Your task to perform on an android device: Show me recent news Image 0: 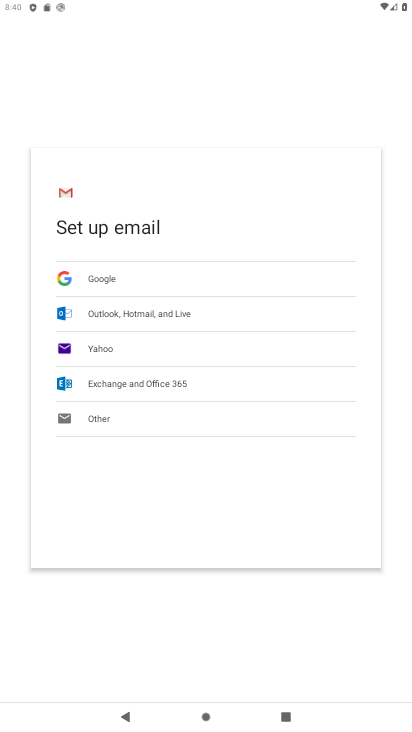
Step 0: press home button
Your task to perform on an android device: Show me recent news Image 1: 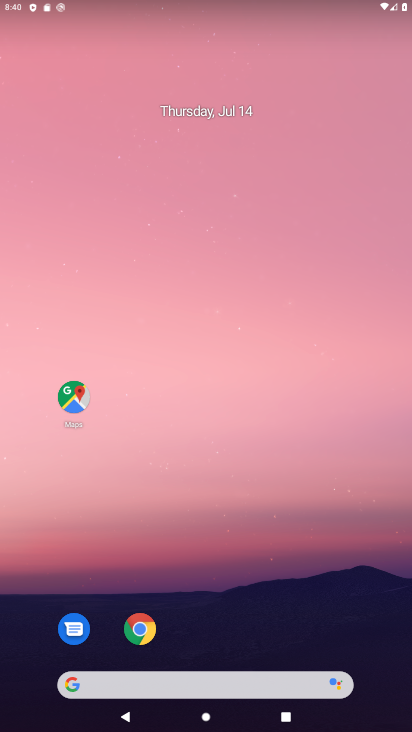
Step 1: click (216, 681)
Your task to perform on an android device: Show me recent news Image 2: 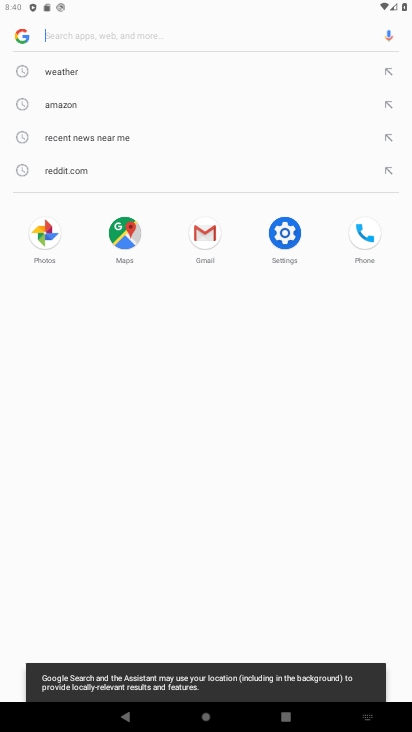
Step 2: click (252, 42)
Your task to perform on an android device: Show me recent news Image 3: 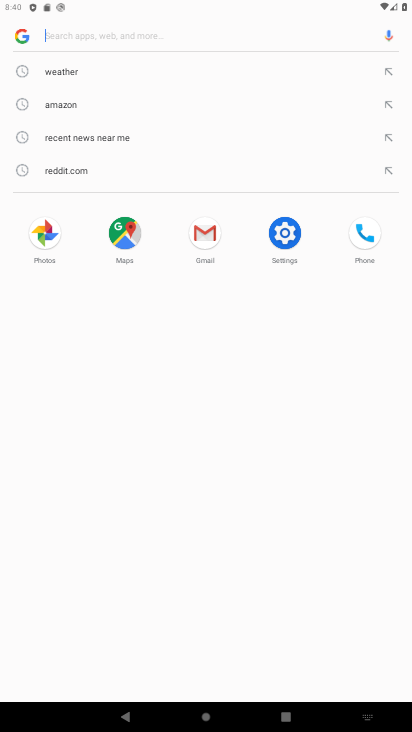
Step 3: type "recent news"
Your task to perform on an android device: Show me recent news Image 4: 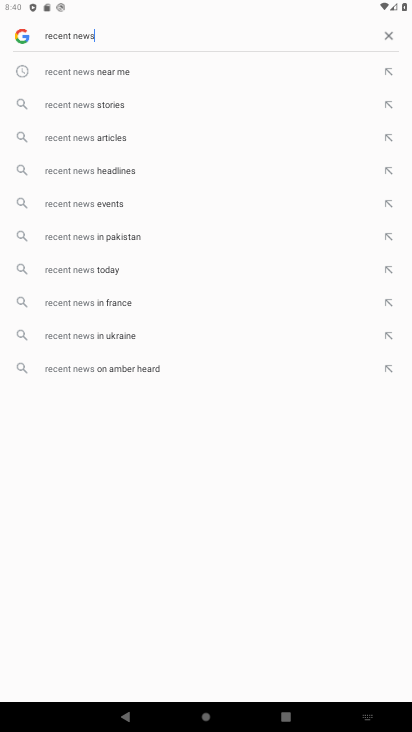
Step 4: click (86, 266)
Your task to perform on an android device: Show me recent news Image 5: 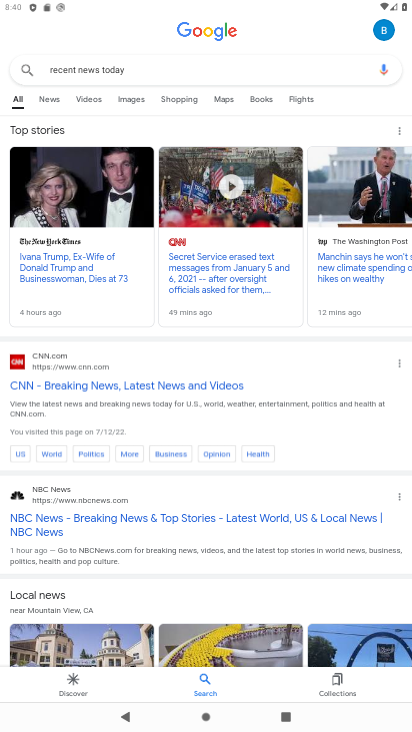
Step 5: click (52, 98)
Your task to perform on an android device: Show me recent news Image 6: 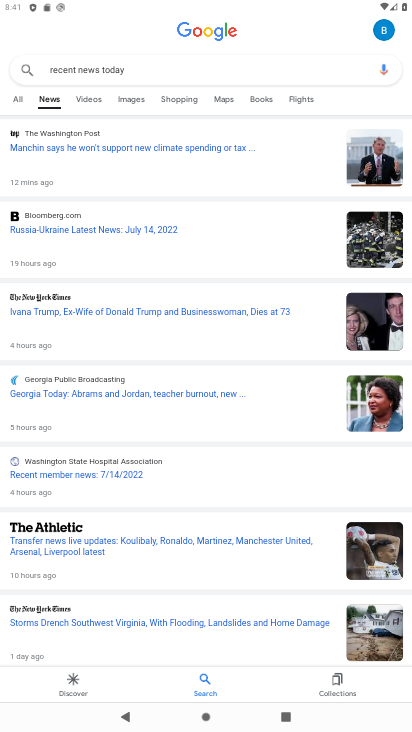
Step 6: task complete